Your task to perform on an android device: turn on airplane mode Image 0: 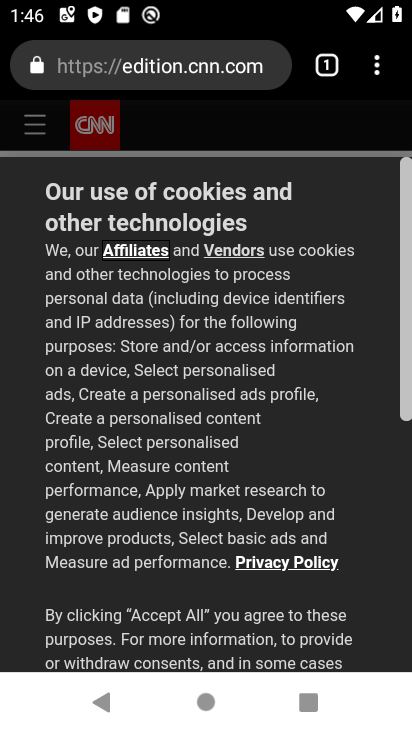
Step 0: press home button
Your task to perform on an android device: turn on airplane mode Image 1: 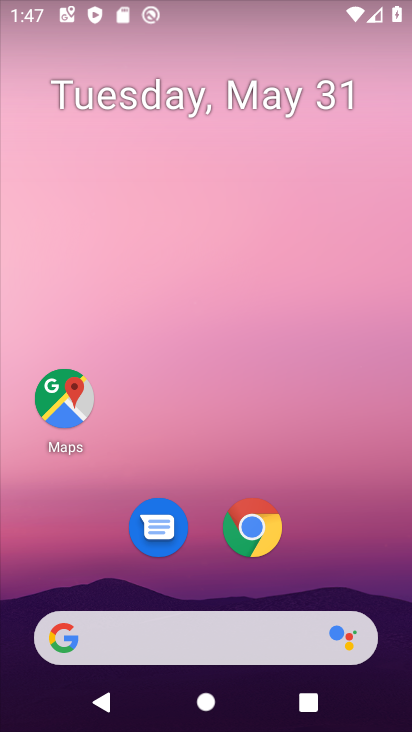
Step 1: drag from (351, 520) to (407, 48)
Your task to perform on an android device: turn on airplane mode Image 2: 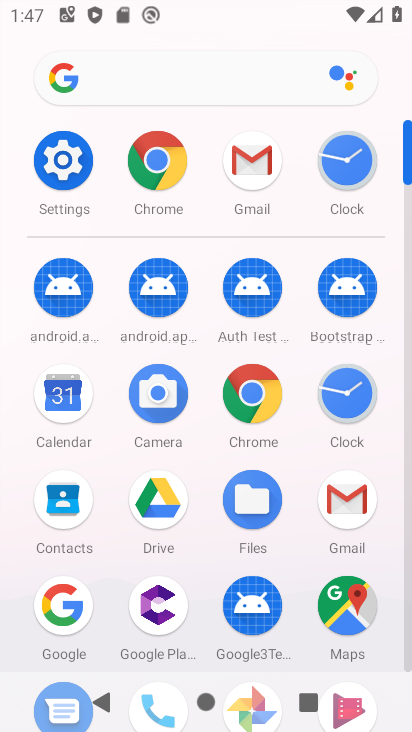
Step 2: click (66, 151)
Your task to perform on an android device: turn on airplane mode Image 3: 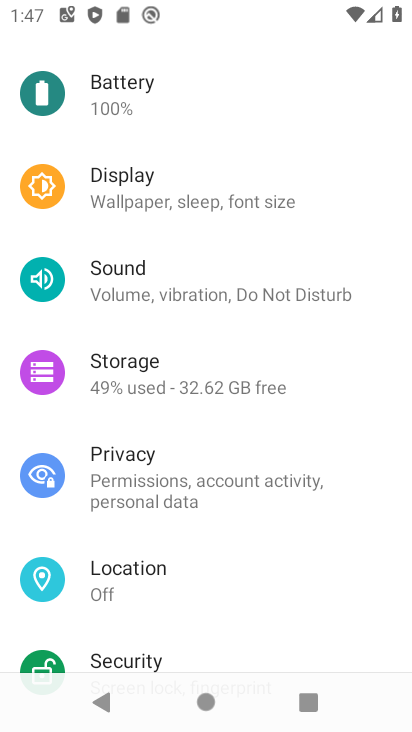
Step 3: drag from (232, 196) to (281, 467)
Your task to perform on an android device: turn on airplane mode Image 4: 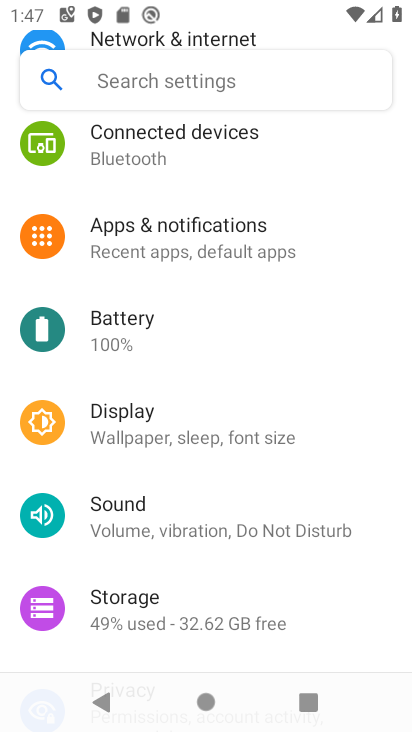
Step 4: drag from (250, 217) to (242, 585)
Your task to perform on an android device: turn on airplane mode Image 5: 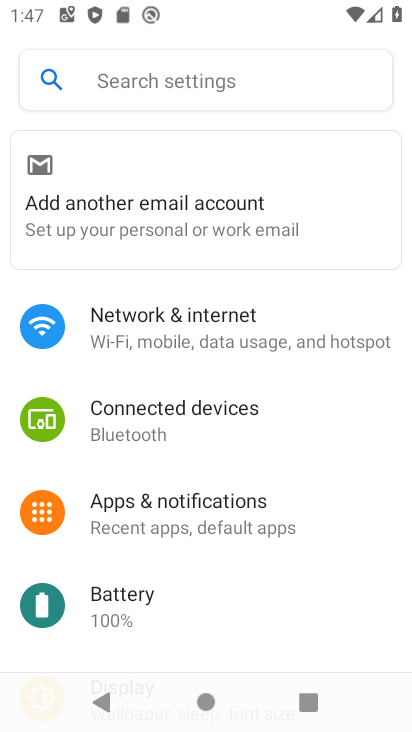
Step 5: click (143, 347)
Your task to perform on an android device: turn on airplane mode Image 6: 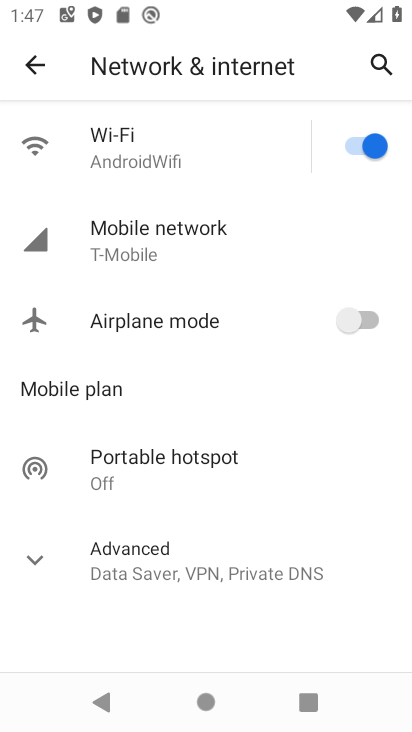
Step 6: click (354, 325)
Your task to perform on an android device: turn on airplane mode Image 7: 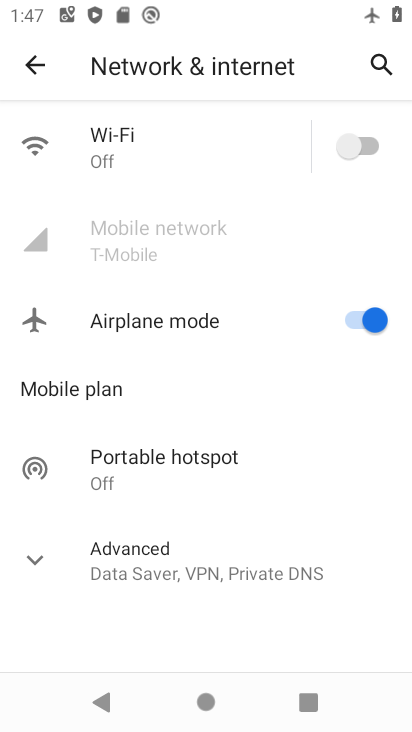
Step 7: task complete